Your task to perform on an android device: turn on airplane mode Image 0: 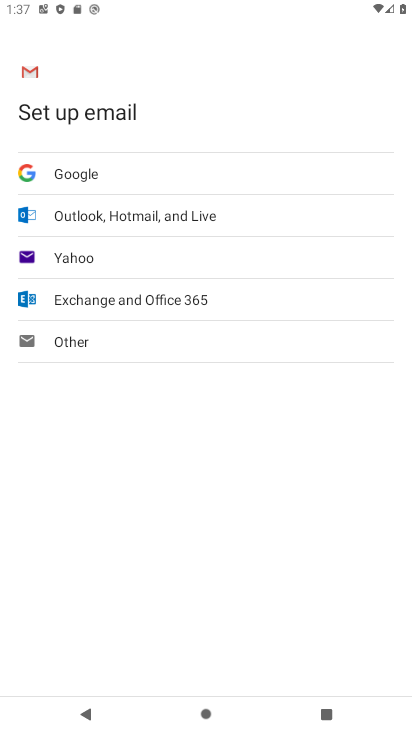
Step 0: press home button
Your task to perform on an android device: turn on airplane mode Image 1: 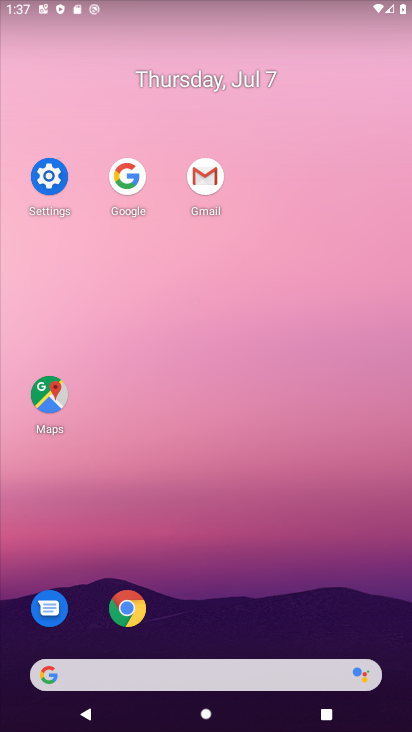
Step 1: click (31, 176)
Your task to perform on an android device: turn on airplane mode Image 2: 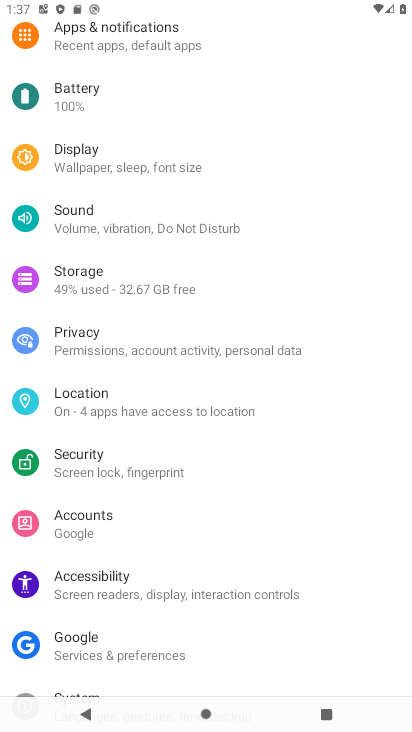
Step 2: drag from (186, 94) to (254, 538)
Your task to perform on an android device: turn on airplane mode Image 3: 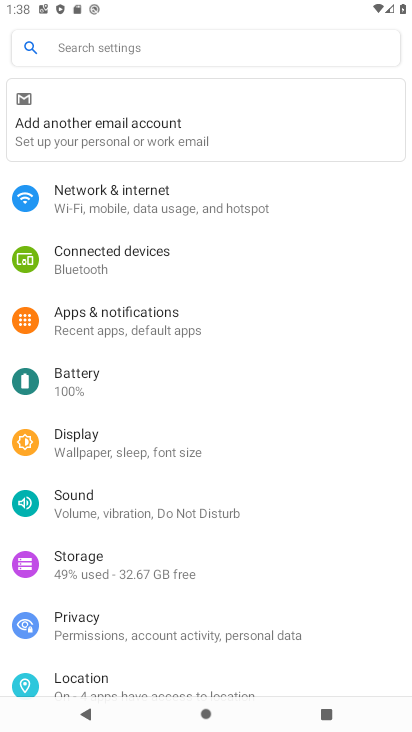
Step 3: click (175, 202)
Your task to perform on an android device: turn on airplane mode Image 4: 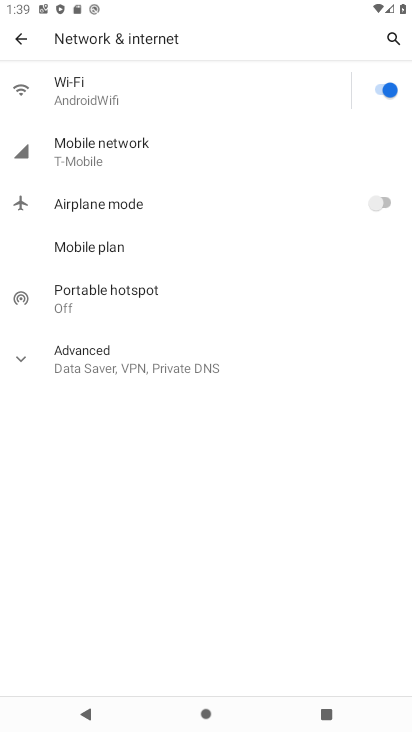
Step 4: click (377, 193)
Your task to perform on an android device: turn on airplane mode Image 5: 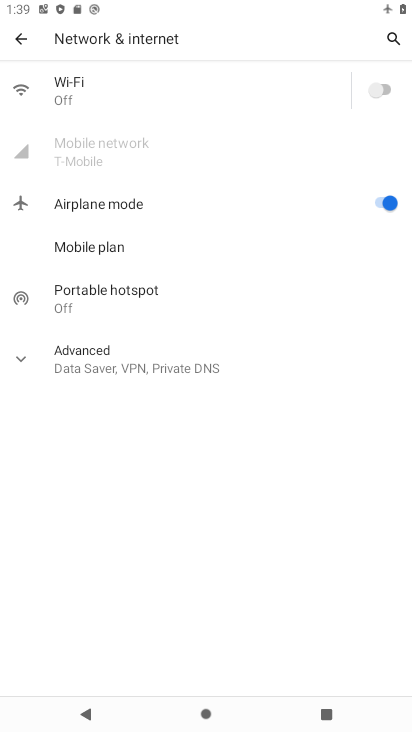
Step 5: task complete